Your task to perform on an android device: show emergency info Image 0: 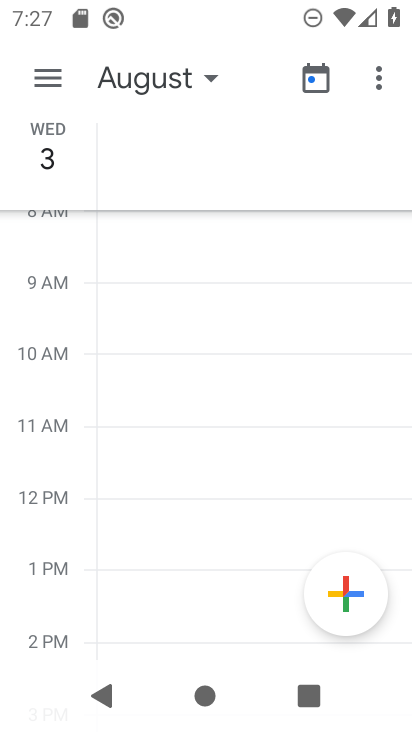
Step 0: press home button
Your task to perform on an android device: show emergency info Image 1: 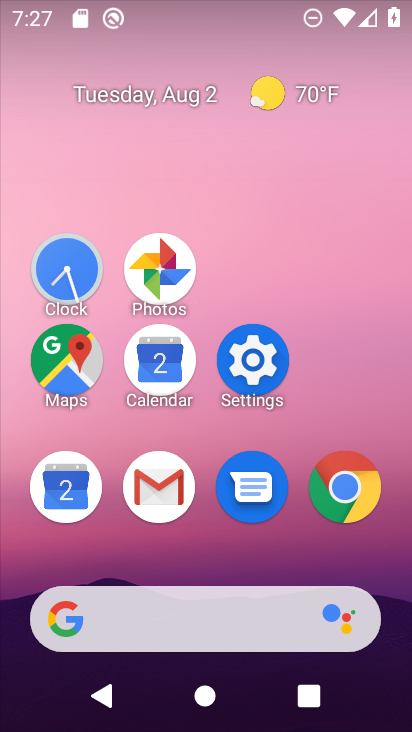
Step 1: click (252, 362)
Your task to perform on an android device: show emergency info Image 2: 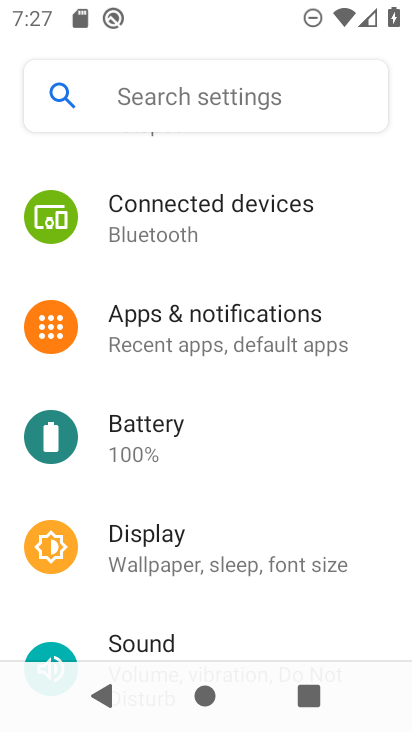
Step 2: drag from (229, 517) to (223, 151)
Your task to perform on an android device: show emergency info Image 3: 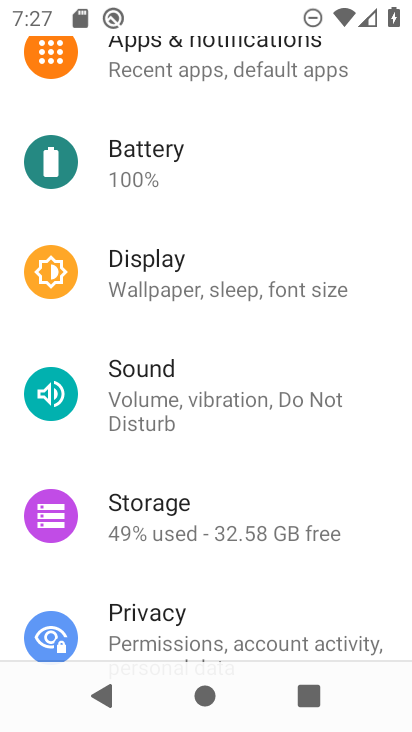
Step 3: drag from (214, 591) to (201, 113)
Your task to perform on an android device: show emergency info Image 4: 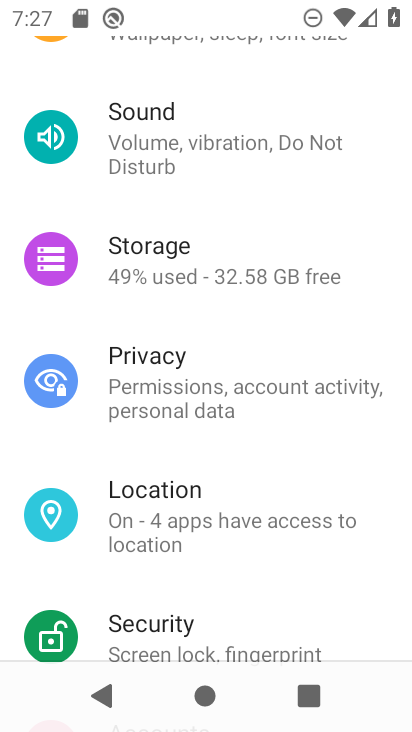
Step 4: drag from (231, 559) to (210, 211)
Your task to perform on an android device: show emergency info Image 5: 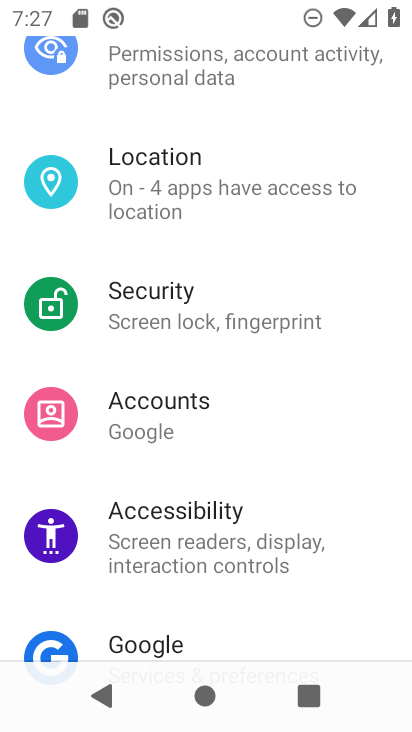
Step 5: drag from (217, 596) to (214, 81)
Your task to perform on an android device: show emergency info Image 6: 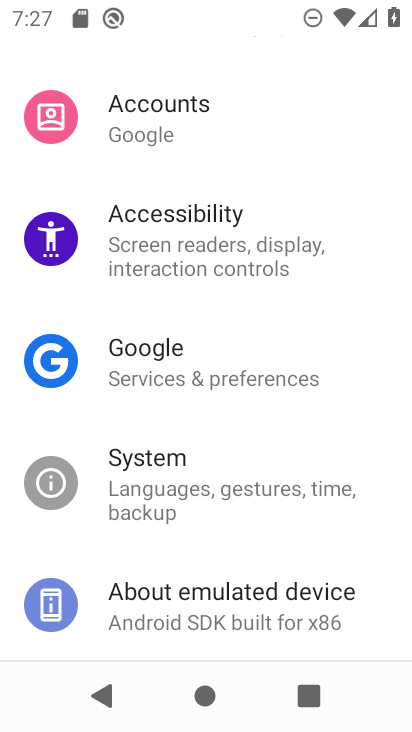
Step 6: drag from (235, 524) to (203, 190)
Your task to perform on an android device: show emergency info Image 7: 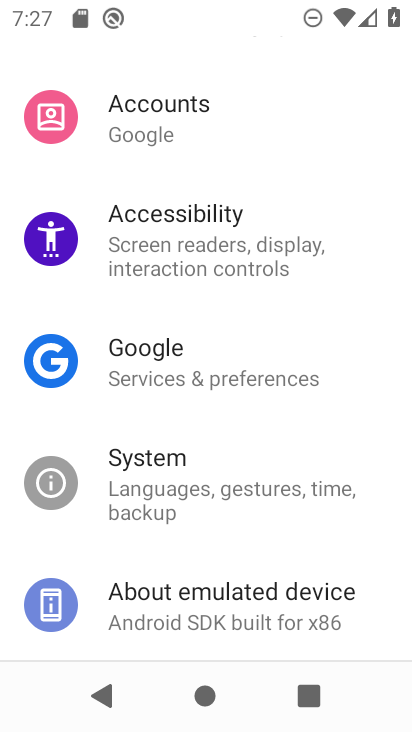
Step 7: click (162, 592)
Your task to perform on an android device: show emergency info Image 8: 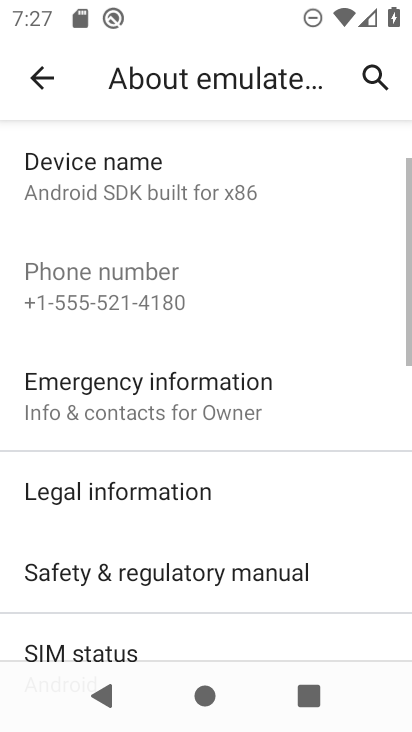
Step 8: click (90, 380)
Your task to perform on an android device: show emergency info Image 9: 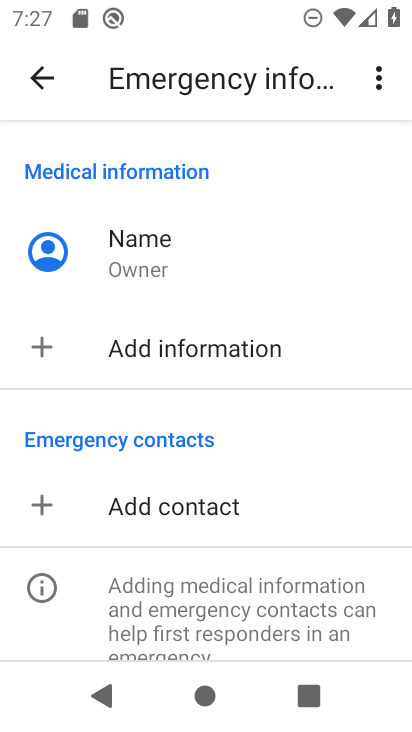
Step 9: task complete